Your task to perform on an android device: find snoozed emails in the gmail app Image 0: 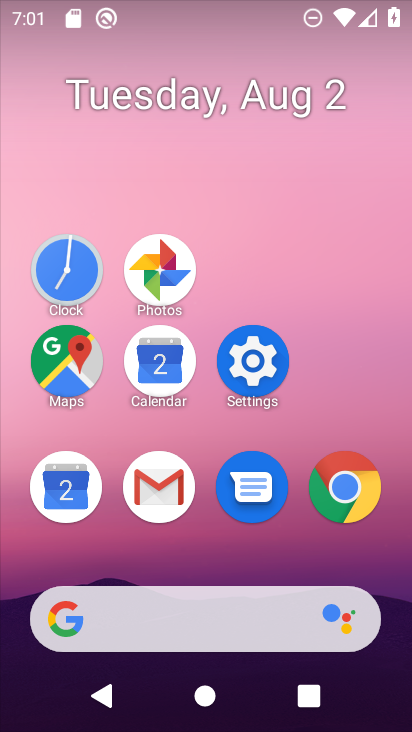
Step 0: click (157, 488)
Your task to perform on an android device: find snoozed emails in the gmail app Image 1: 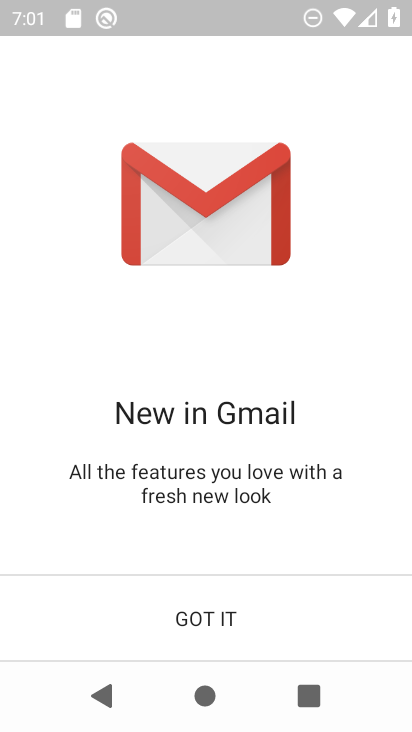
Step 1: click (213, 614)
Your task to perform on an android device: find snoozed emails in the gmail app Image 2: 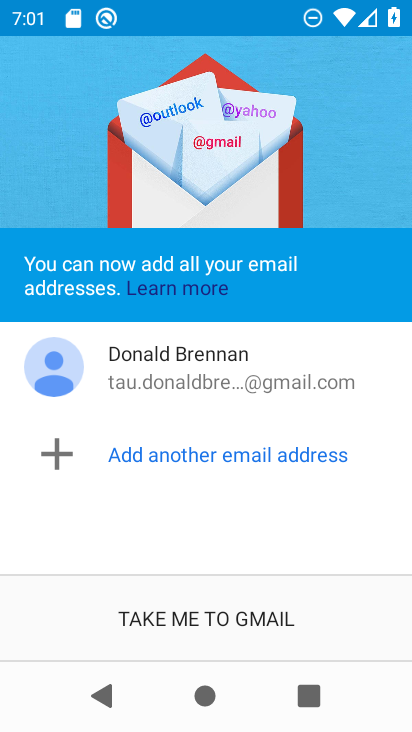
Step 2: click (225, 620)
Your task to perform on an android device: find snoozed emails in the gmail app Image 3: 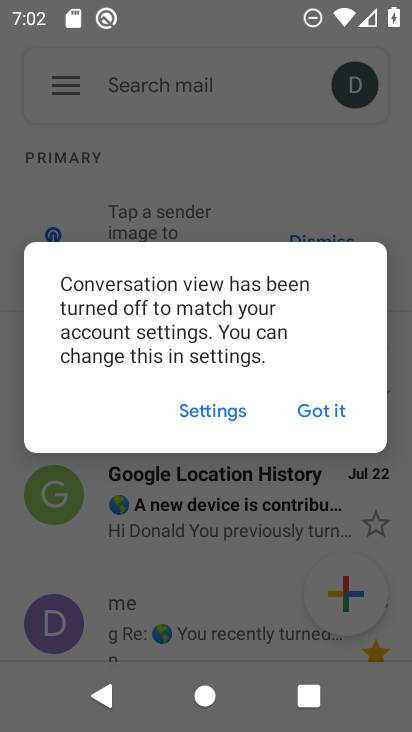
Step 3: click (313, 412)
Your task to perform on an android device: find snoozed emails in the gmail app Image 4: 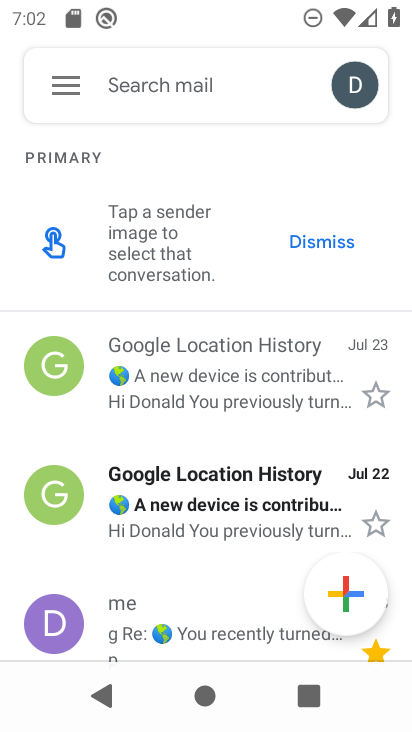
Step 4: click (72, 87)
Your task to perform on an android device: find snoozed emails in the gmail app Image 5: 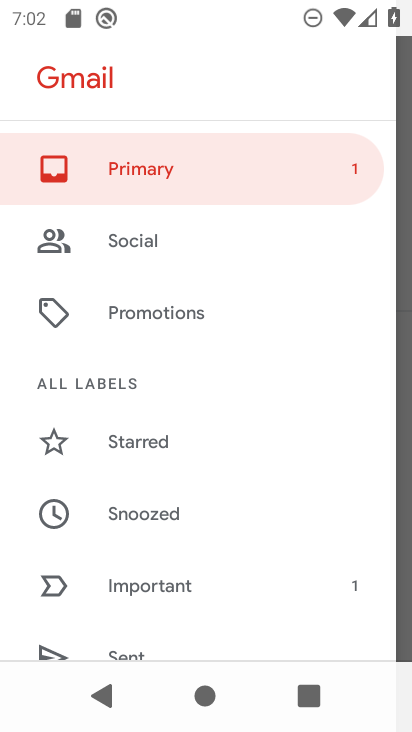
Step 5: drag from (256, 562) to (241, 284)
Your task to perform on an android device: find snoozed emails in the gmail app Image 6: 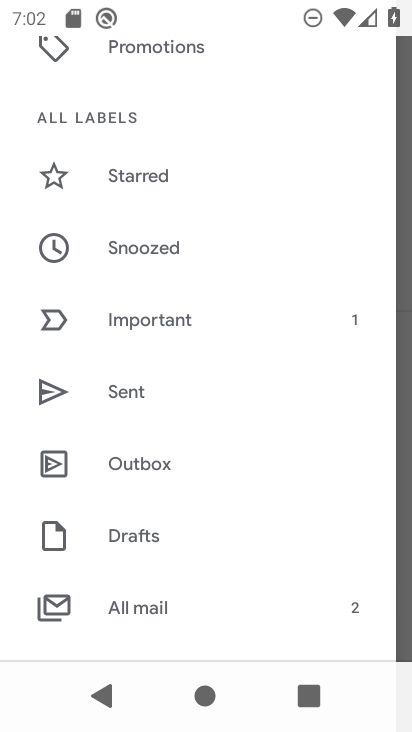
Step 6: drag from (253, 549) to (248, 203)
Your task to perform on an android device: find snoozed emails in the gmail app Image 7: 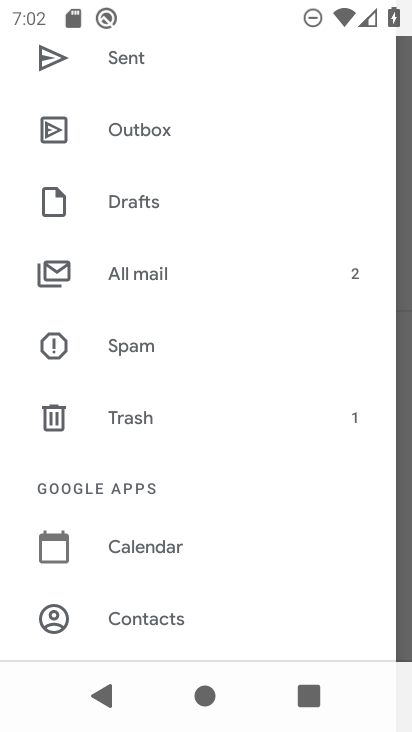
Step 7: drag from (245, 544) to (233, 302)
Your task to perform on an android device: find snoozed emails in the gmail app Image 8: 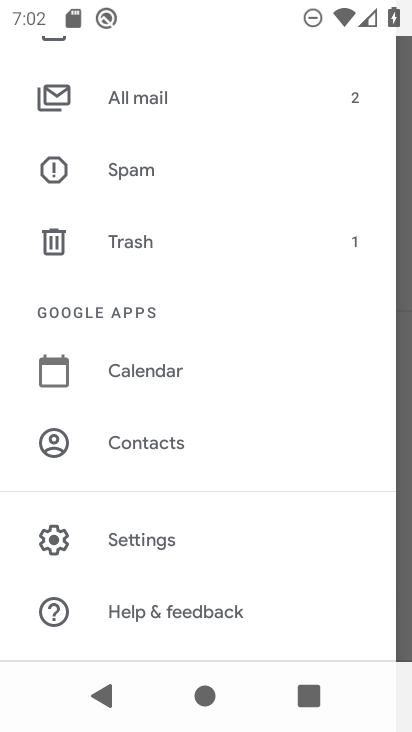
Step 8: drag from (248, 145) to (248, 447)
Your task to perform on an android device: find snoozed emails in the gmail app Image 9: 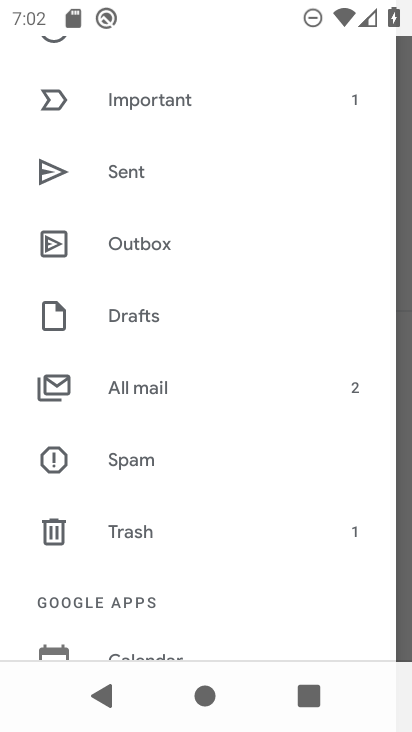
Step 9: drag from (246, 209) to (240, 504)
Your task to perform on an android device: find snoozed emails in the gmail app Image 10: 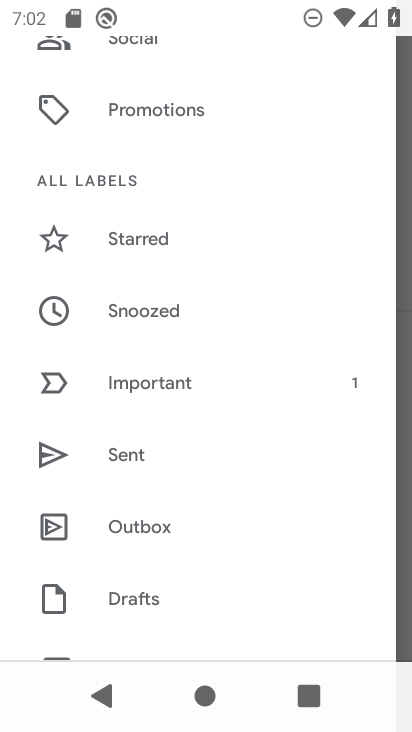
Step 10: click (139, 311)
Your task to perform on an android device: find snoozed emails in the gmail app Image 11: 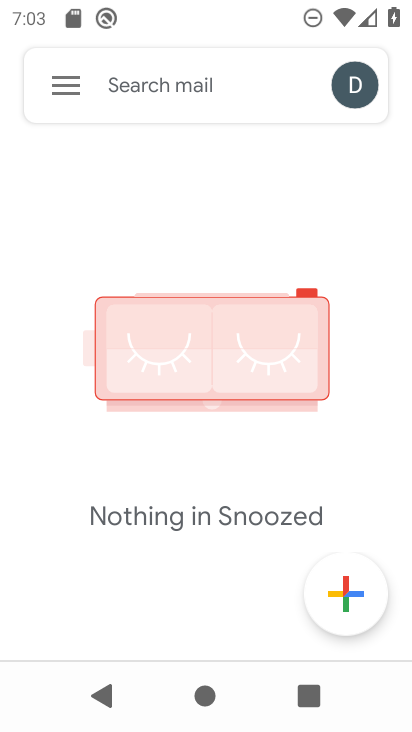
Step 11: task complete